Your task to perform on an android device: Open Amazon Image 0: 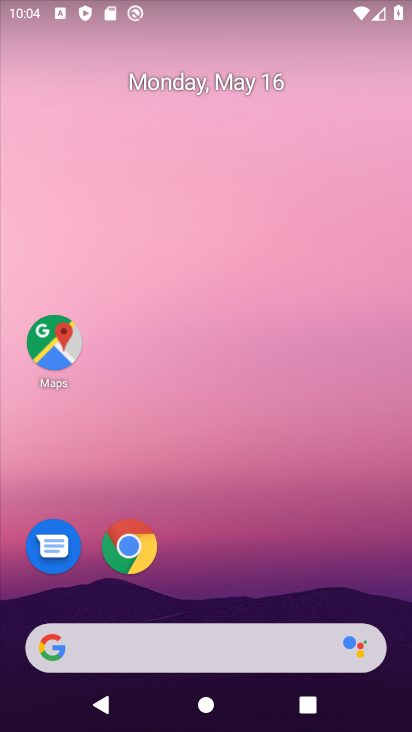
Step 0: click (133, 549)
Your task to perform on an android device: Open Amazon Image 1: 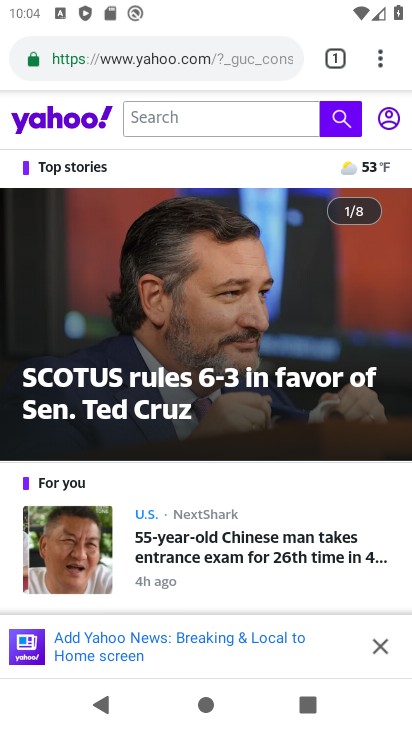
Step 1: click (323, 54)
Your task to perform on an android device: Open Amazon Image 2: 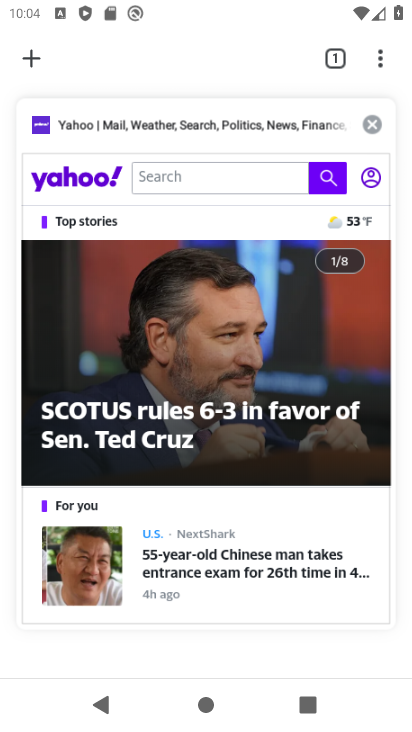
Step 2: click (31, 59)
Your task to perform on an android device: Open Amazon Image 3: 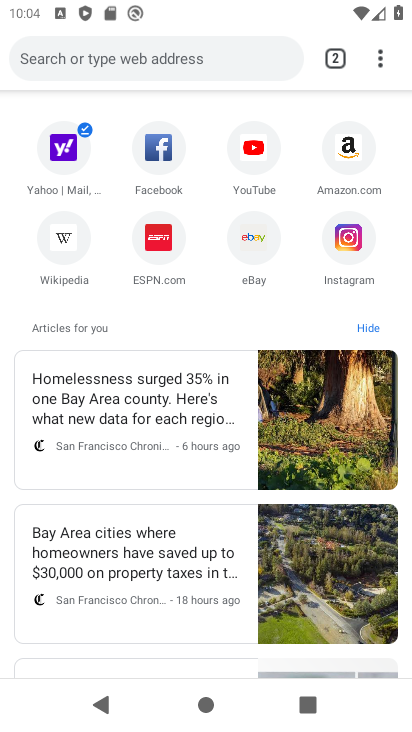
Step 3: click (364, 134)
Your task to perform on an android device: Open Amazon Image 4: 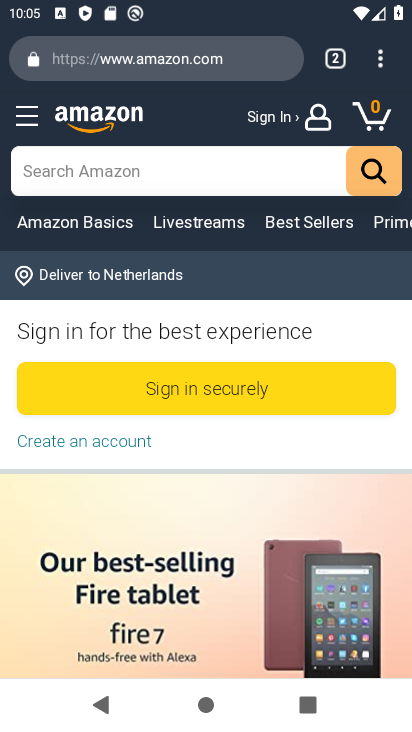
Step 4: task complete